Your task to perform on an android device: Open location settings Image 0: 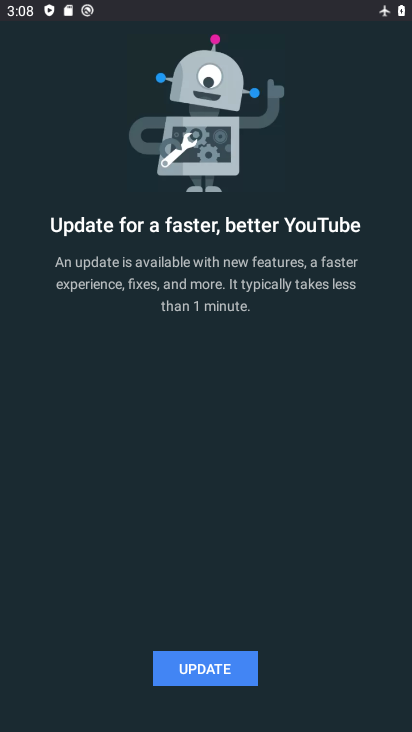
Step 0: press home button
Your task to perform on an android device: Open location settings Image 1: 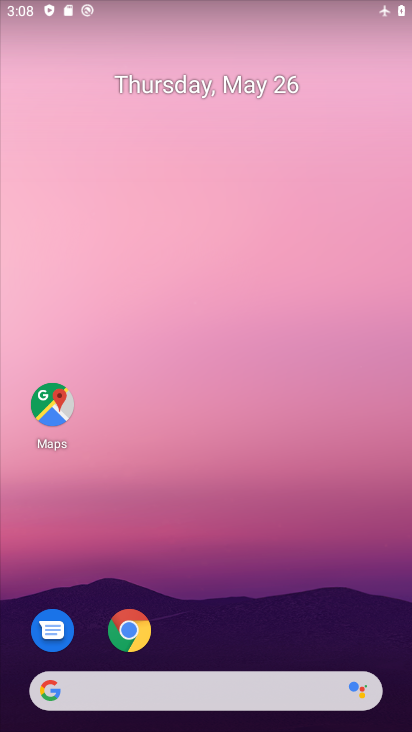
Step 1: drag from (244, 626) to (216, 185)
Your task to perform on an android device: Open location settings Image 2: 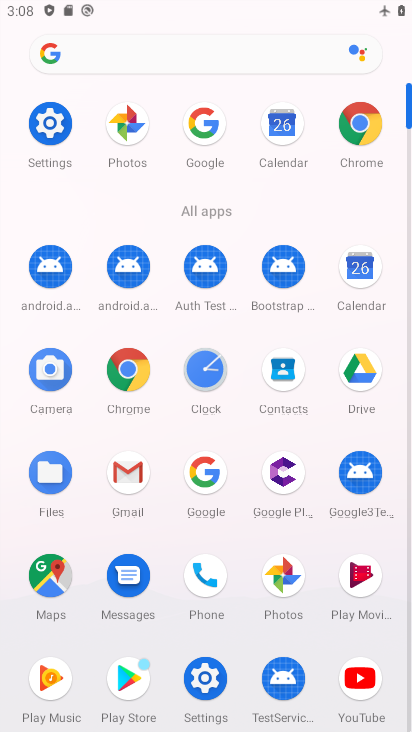
Step 2: click (48, 123)
Your task to perform on an android device: Open location settings Image 3: 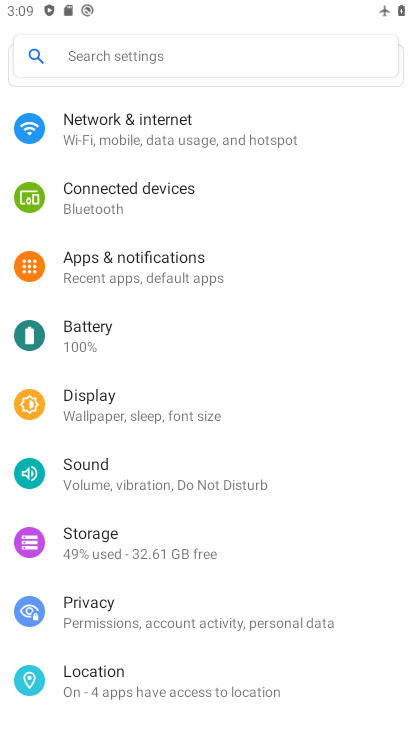
Step 3: drag from (133, 588) to (181, 485)
Your task to perform on an android device: Open location settings Image 4: 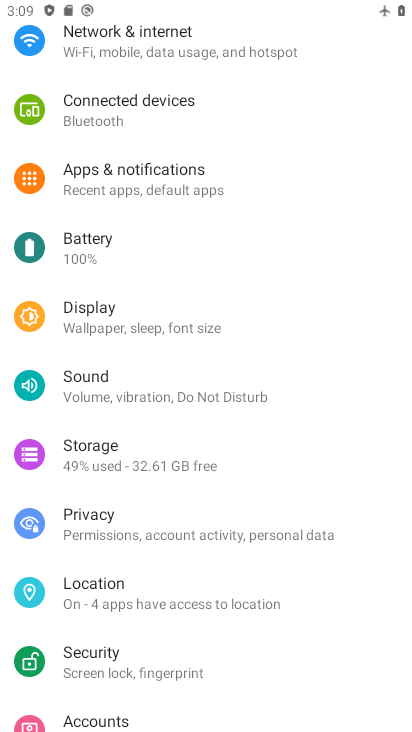
Step 4: click (103, 599)
Your task to perform on an android device: Open location settings Image 5: 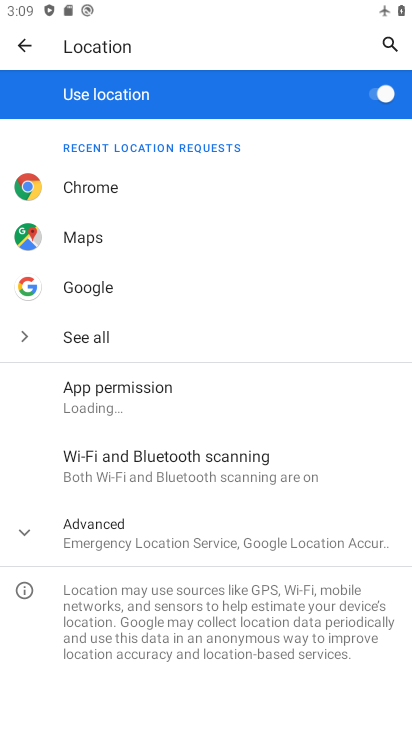
Step 5: task complete